Your task to perform on an android device: open app "Life360: Find Family & Friends" (install if not already installed) and enter user name: "gusts@gmail.com" and password: "assurers" Image 0: 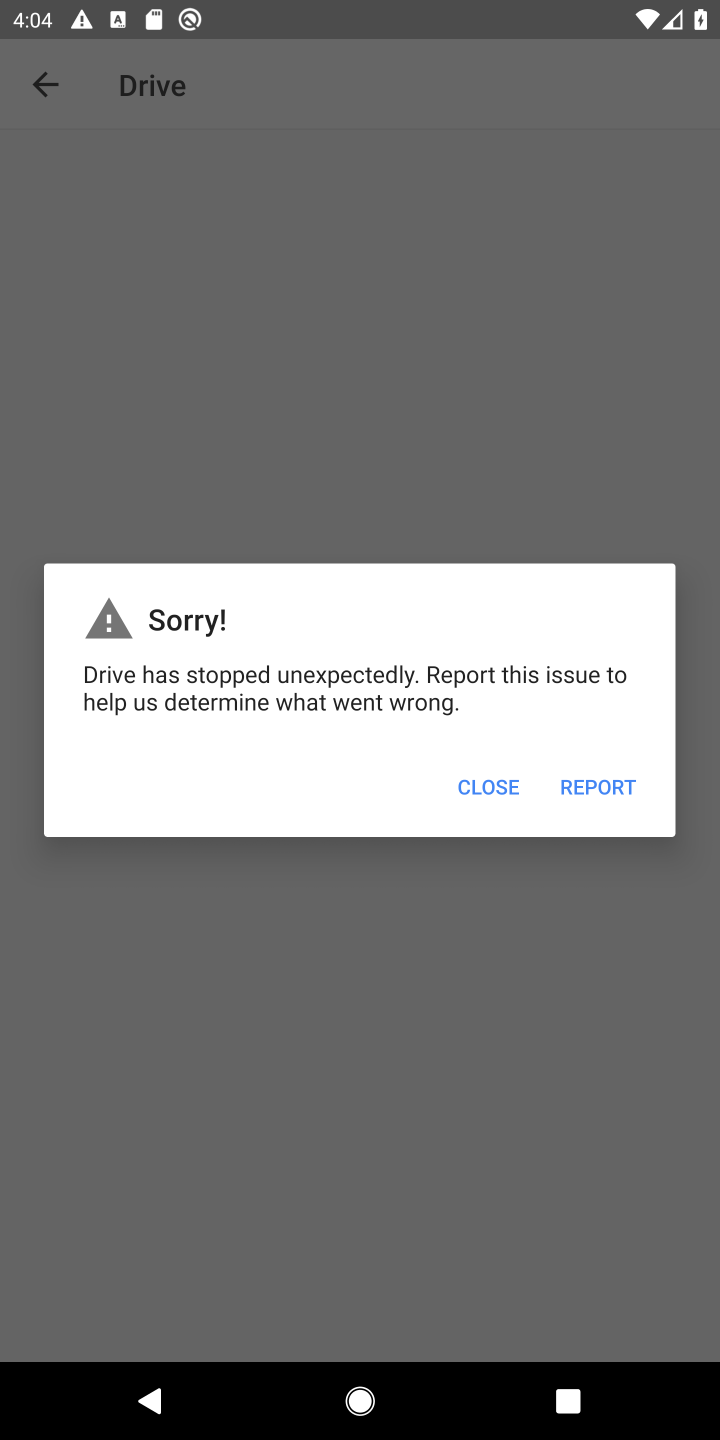
Step 0: press home button
Your task to perform on an android device: open app "Life360: Find Family & Friends" (install if not already installed) and enter user name: "gusts@gmail.com" and password: "assurers" Image 1: 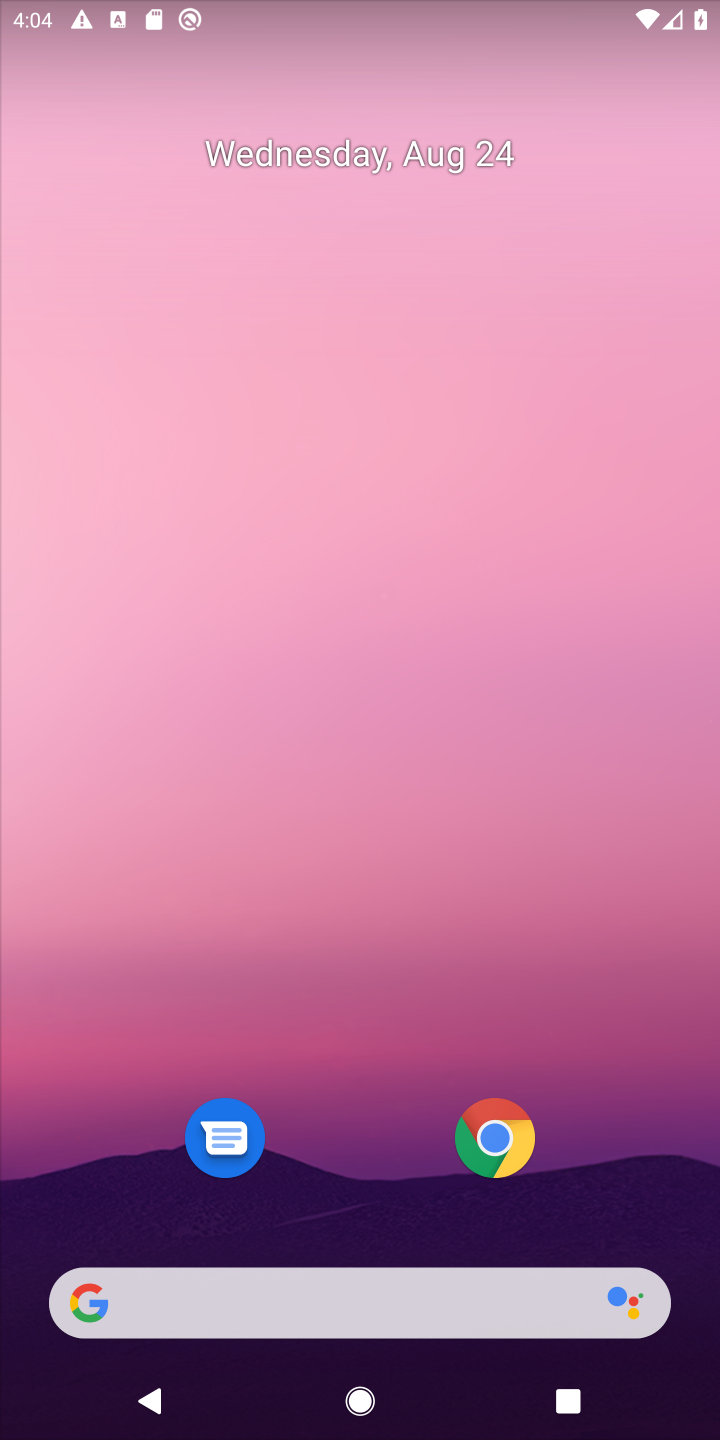
Step 1: drag from (402, 1252) to (416, 333)
Your task to perform on an android device: open app "Life360: Find Family & Friends" (install if not already installed) and enter user name: "gusts@gmail.com" and password: "assurers" Image 2: 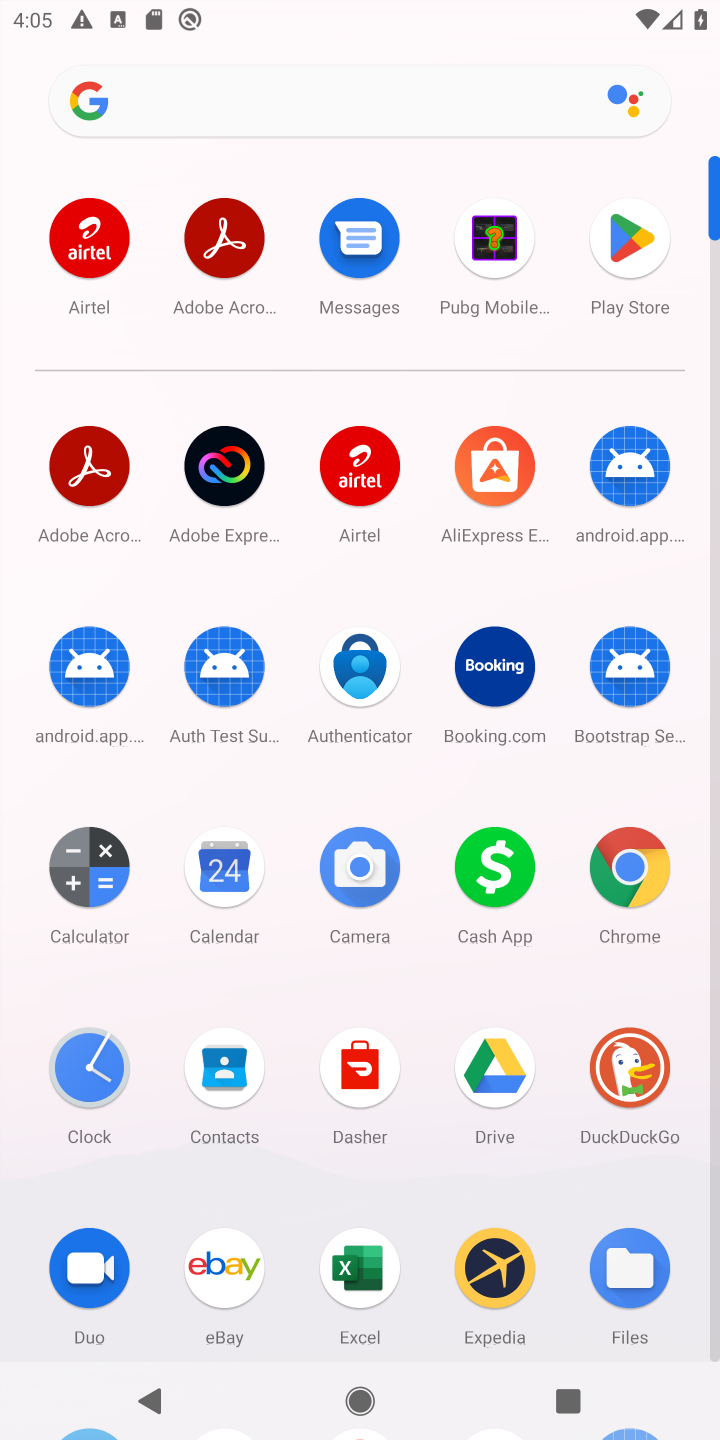
Step 2: click (622, 249)
Your task to perform on an android device: open app "Life360: Find Family & Friends" (install if not already installed) and enter user name: "gusts@gmail.com" and password: "assurers" Image 3: 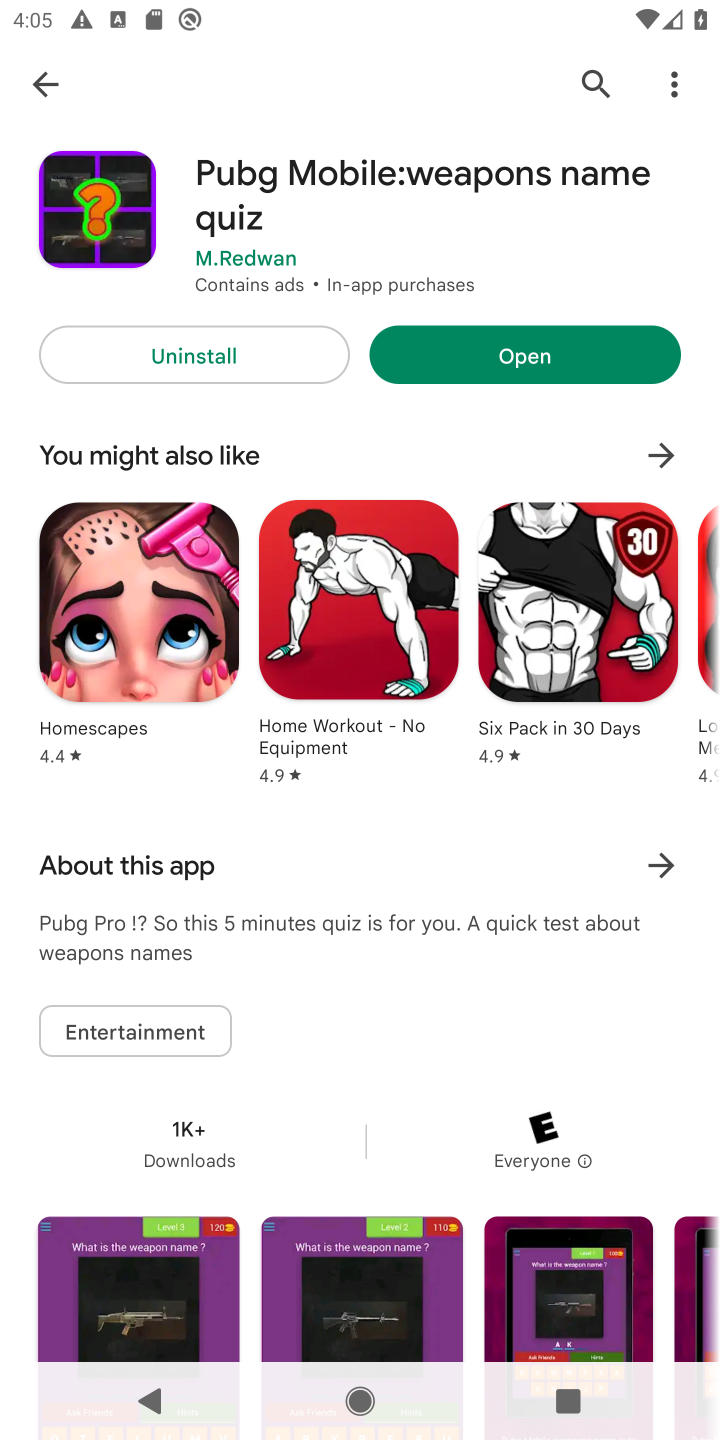
Step 3: click (582, 72)
Your task to perform on an android device: open app "Life360: Find Family & Friends" (install if not already installed) and enter user name: "gusts@gmail.com" and password: "assurers" Image 4: 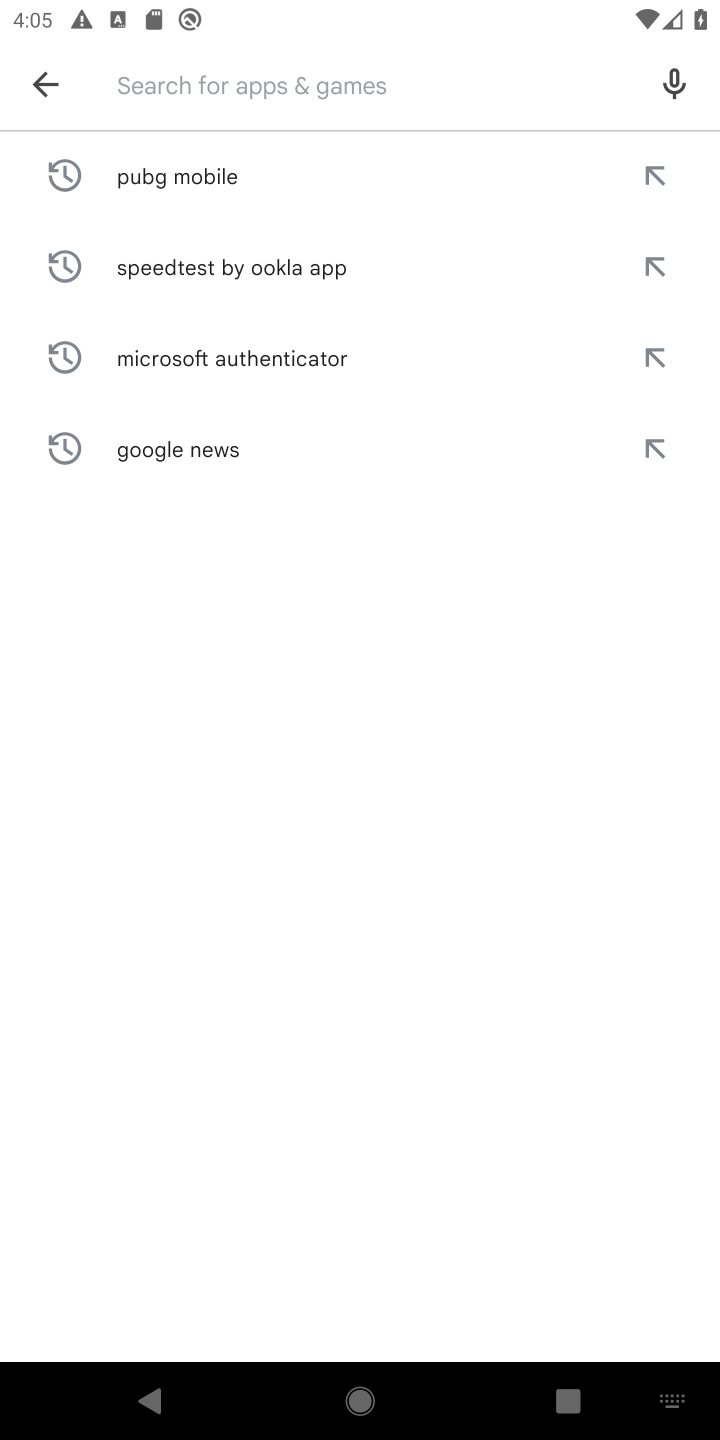
Step 4: type "Life360: Find Family & Friends"
Your task to perform on an android device: open app "Life360: Find Family & Friends" (install if not already installed) and enter user name: "gusts@gmail.com" and password: "assurers" Image 5: 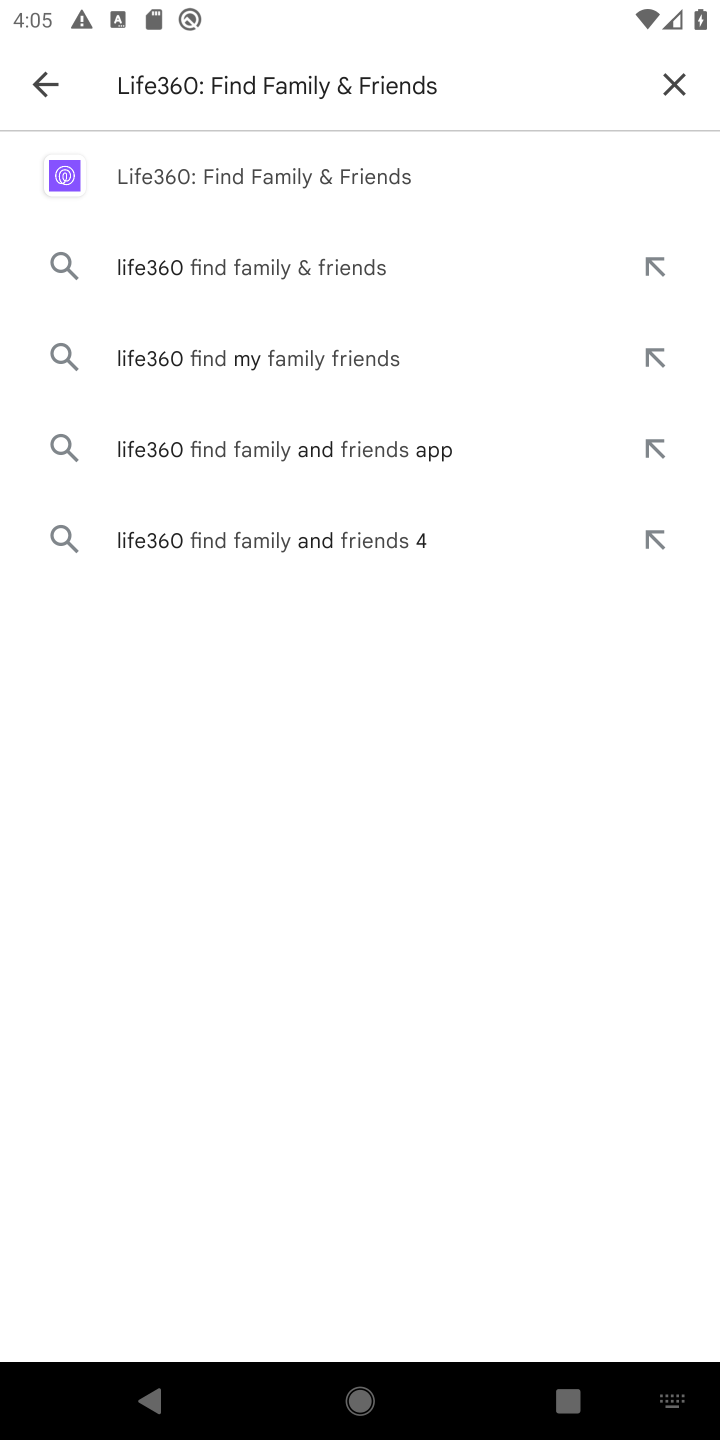
Step 5: click (269, 177)
Your task to perform on an android device: open app "Life360: Find Family & Friends" (install if not already installed) and enter user name: "gusts@gmail.com" and password: "assurers" Image 6: 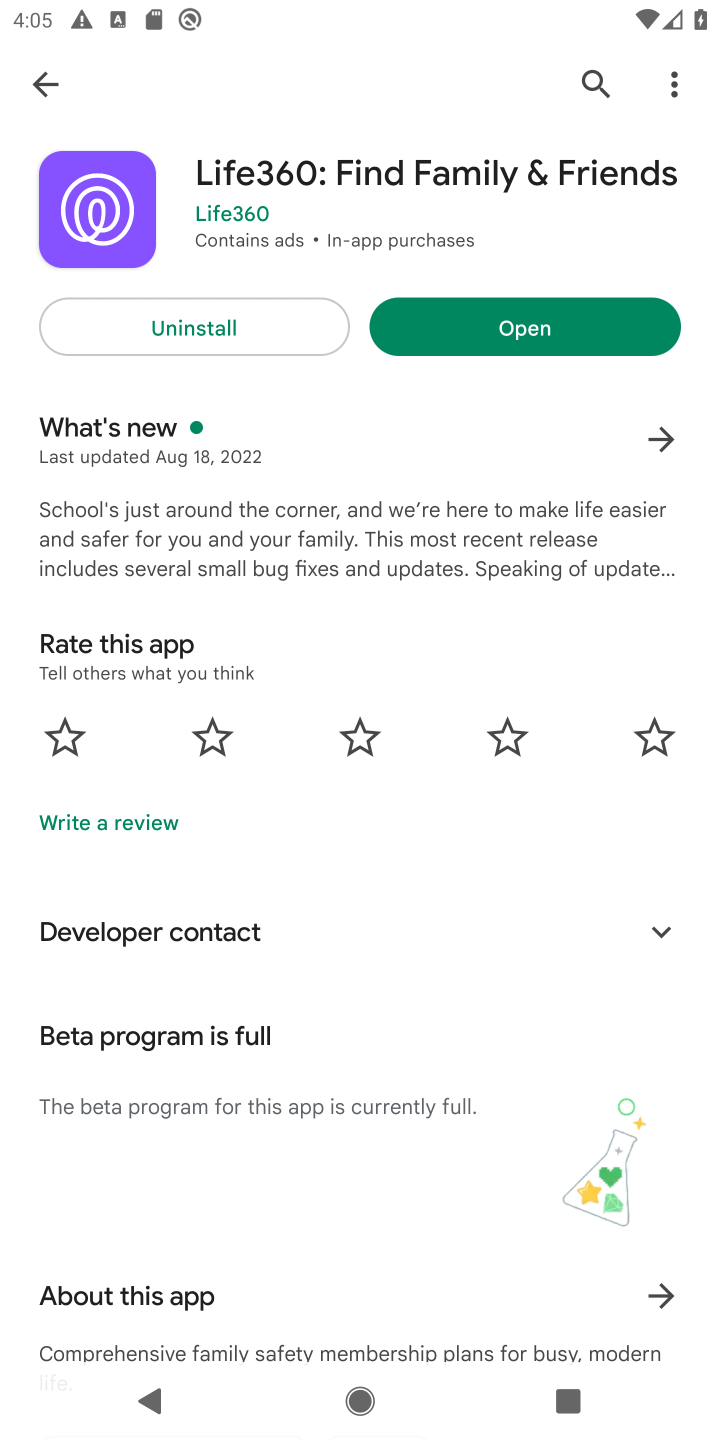
Step 6: click (517, 334)
Your task to perform on an android device: open app "Life360: Find Family & Friends" (install if not already installed) and enter user name: "gusts@gmail.com" and password: "assurers" Image 7: 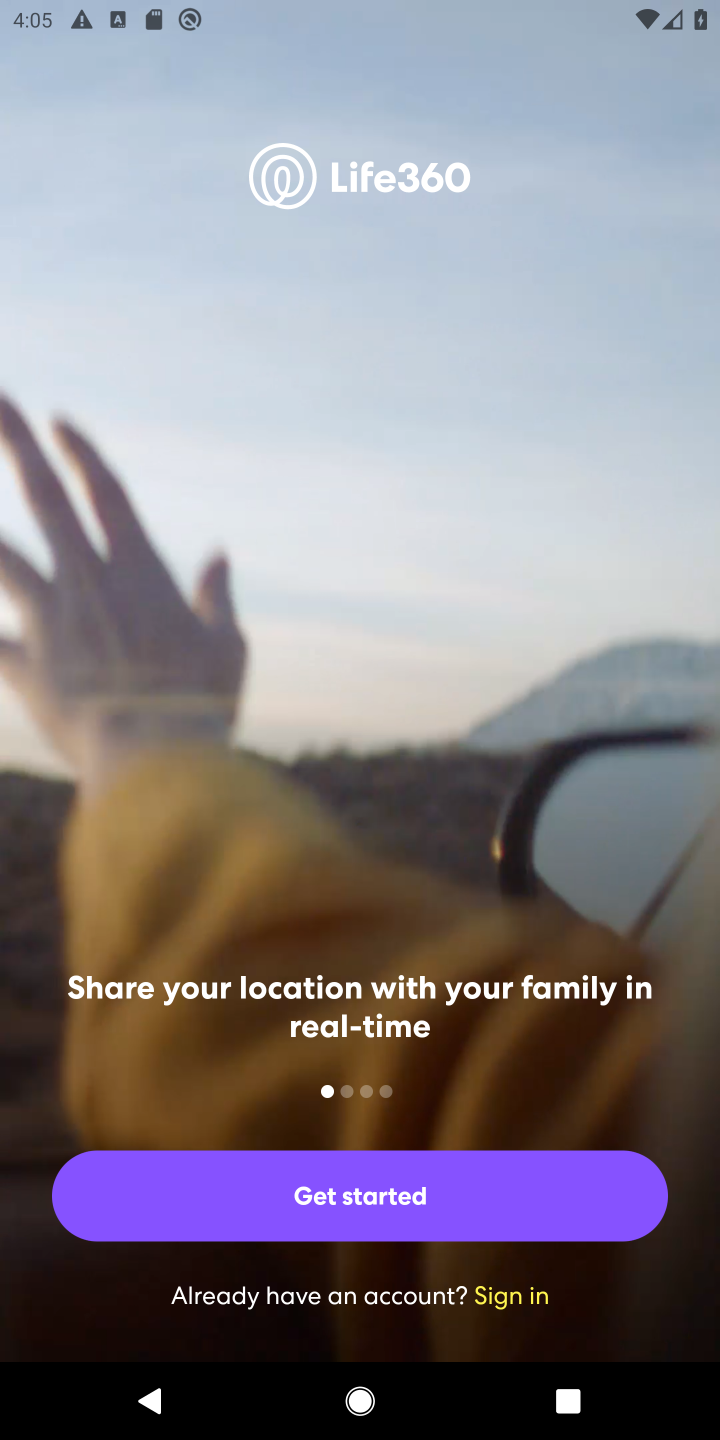
Step 7: task complete